Your task to perform on an android device: Clear all items from cart on target.com. Search for alienware area 51 on target.com, select the first entry, and add it to the cart. Image 0: 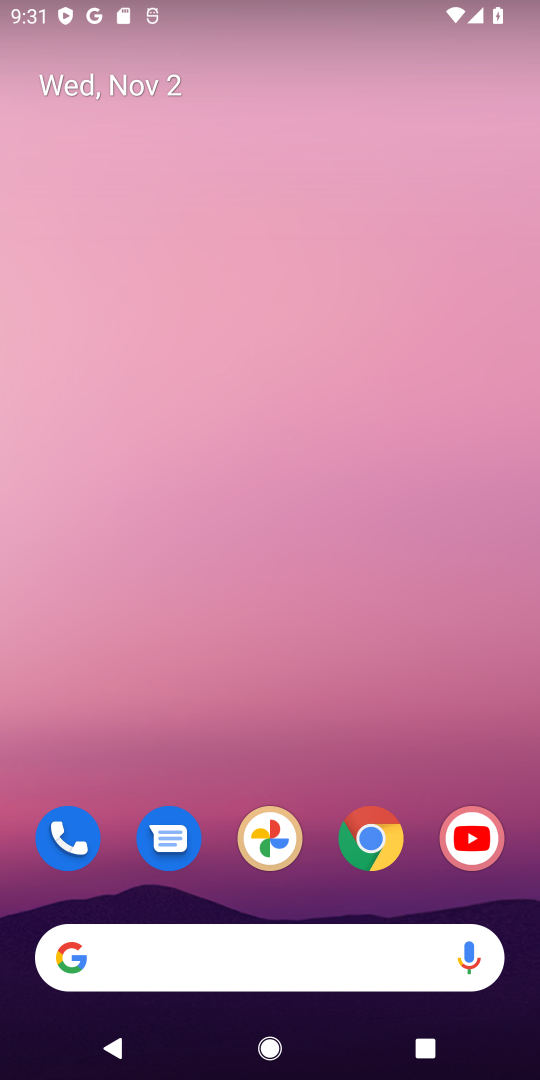
Step 0: click (390, 859)
Your task to perform on an android device: Clear all items from cart on target.com. Search for alienware area 51 on target.com, select the first entry, and add it to the cart. Image 1: 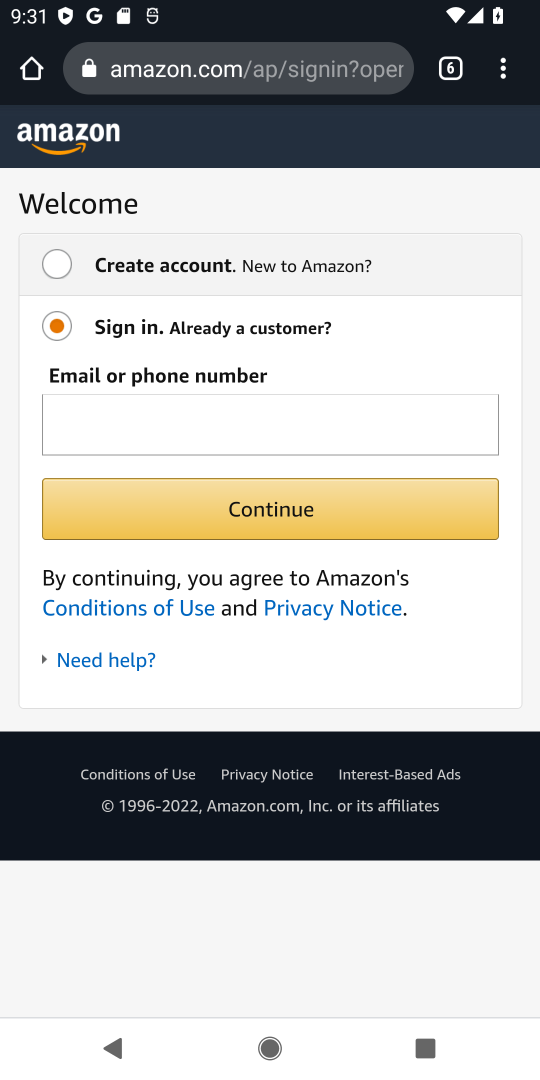
Step 1: click (441, 76)
Your task to perform on an android device: Clear all items from cart on target.com. Search for alienware area 51 on target.com, select the first entry, and add it to the cart. Image 2: 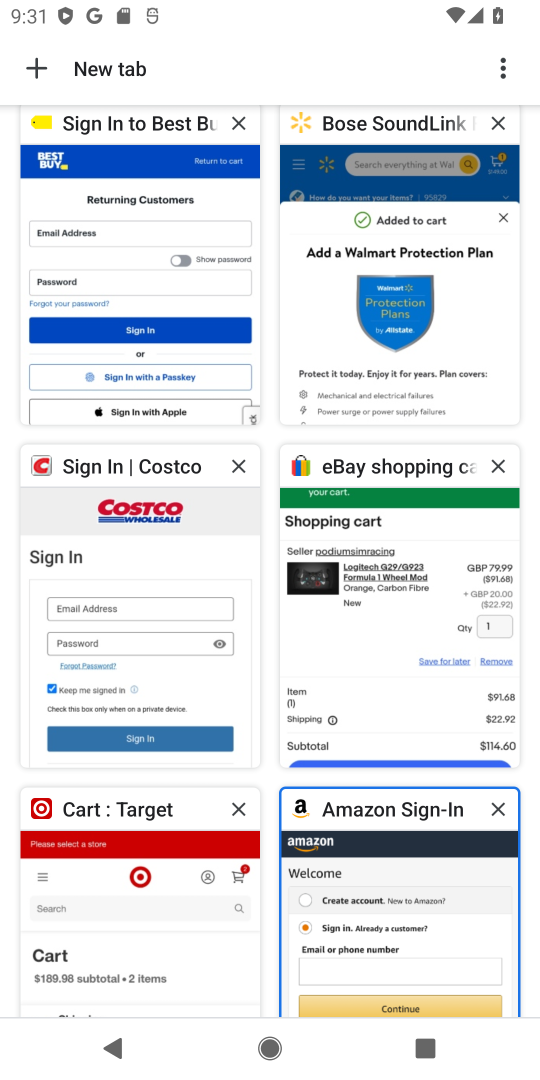
Step 2: click (70, 811)
Your task to perform on an android device: Clear all items from cart on target.com. Search for alienware area 51 on target.com, select the first entry, and add it to the cart. Image 3: 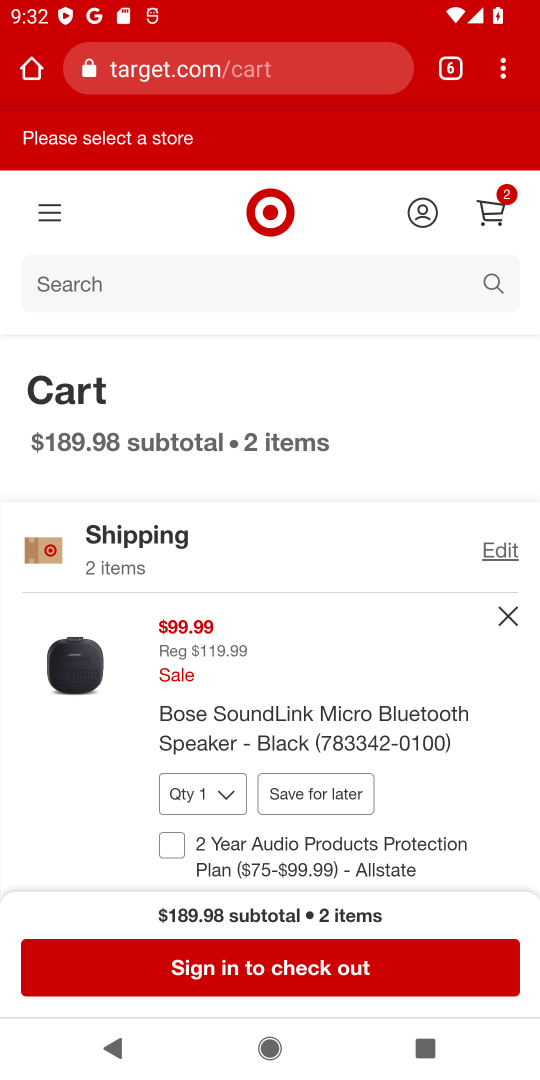
Step 3: click (229, 280)
Your task to perform on an android device: Clear all items from cart on target.com. Search for alienware area 51 on target.com, select the first entry, and add it to the cart. Image 4: 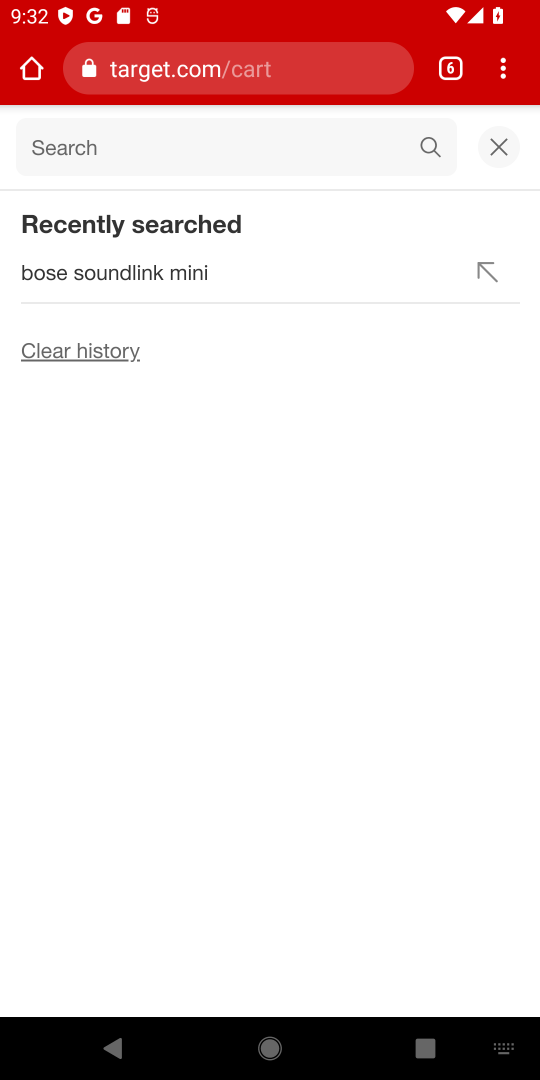
Step 4: type "alienware area 51"
Your task to perform on an android device: Clear all items from cart on target.com. Search for alienware area 51 on target.com, select the first entry, and add it to the cart. Image 5: 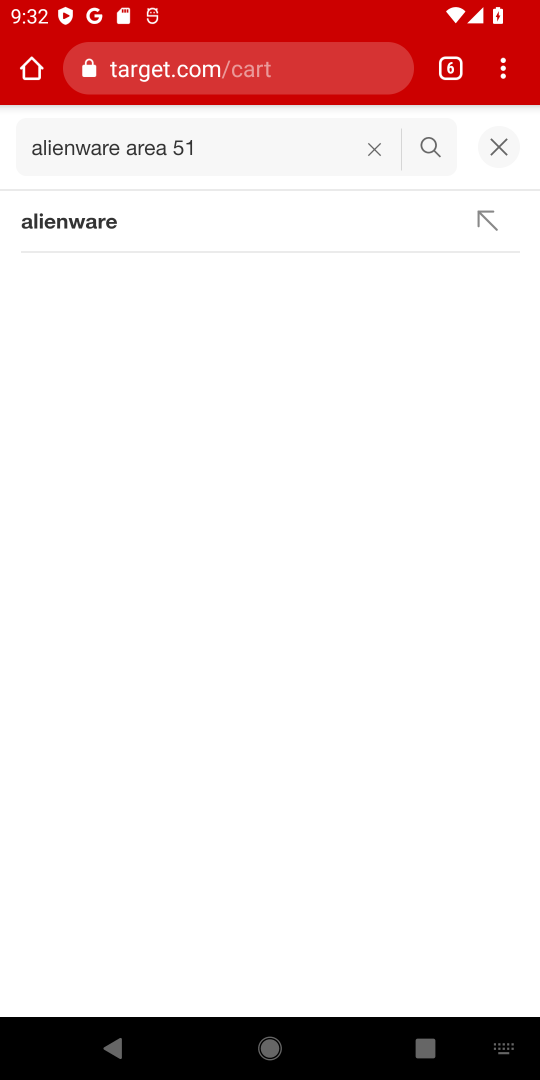
Step 5: click (101, 231)
Your task to perform on an android device: Clear all items from cart on target.com. Search for alienware area 51 on target.com, select the first entry, and add it to the cart. Image 6: 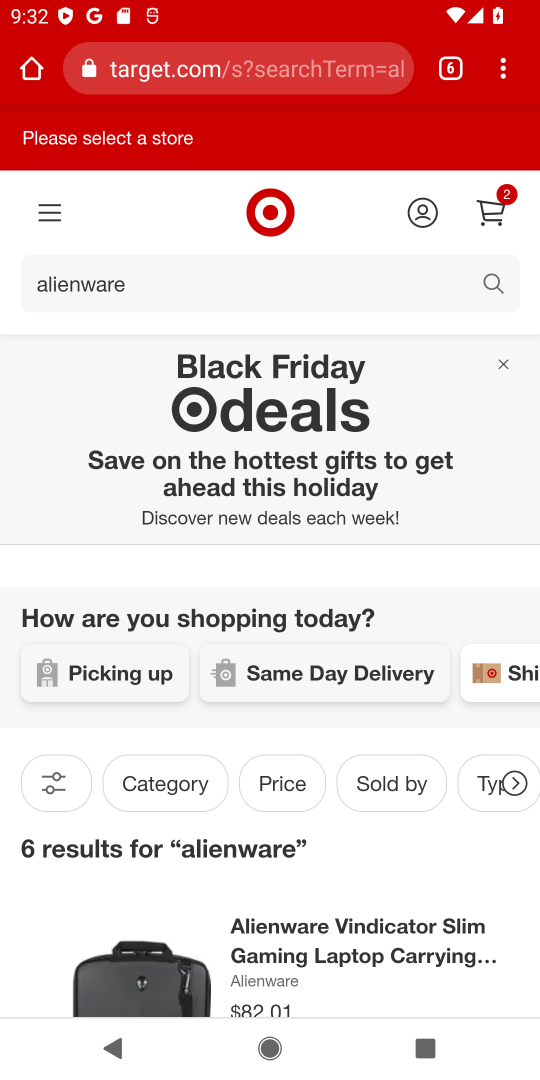
Step 6: drag from (374, 924) to (395, 335)
Your task to perform on an android device: Clear all items from cart on target.com. Search for alienware area 51 on target.com, select the first entry, and add it to the cart. Image 7: 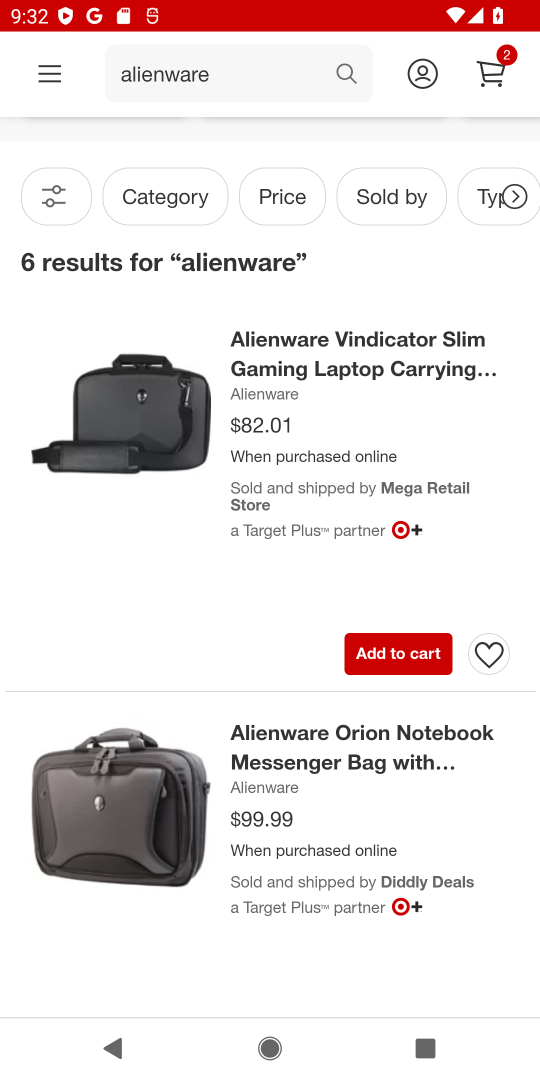
Step 7: click (412, 653)
Your task to perform on an android device: Clear all items from cart on target.com. Search for alienware area 51 on target.com, select the first entry, and add it to the cart. Image 8: 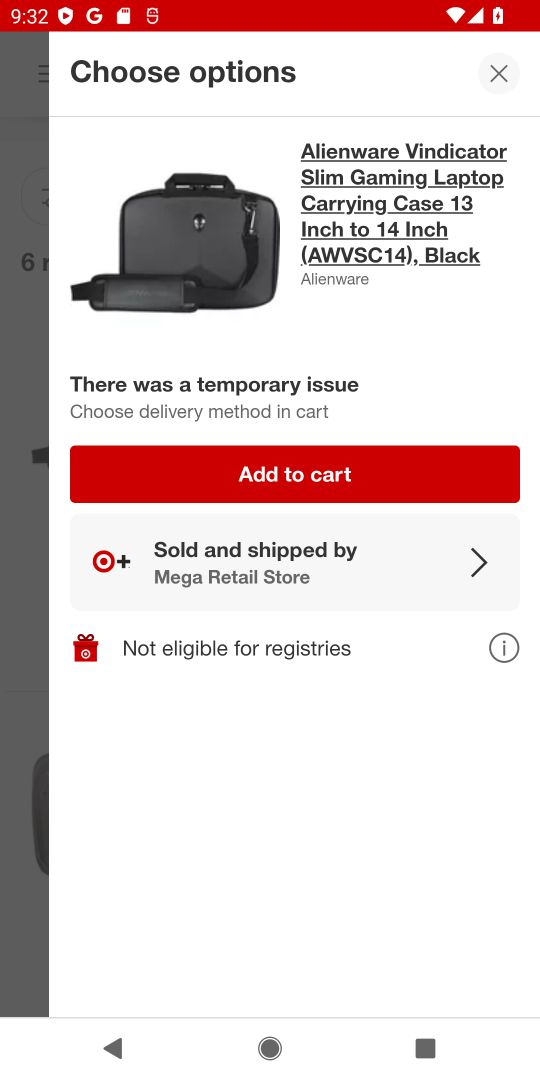
Step 8: click (303, 464)
Your task to perform on an android device: Clear all items from cart on target.com. Search for alienware area 51 on target.com, select the first entry, and add it to the cart. Image 9: 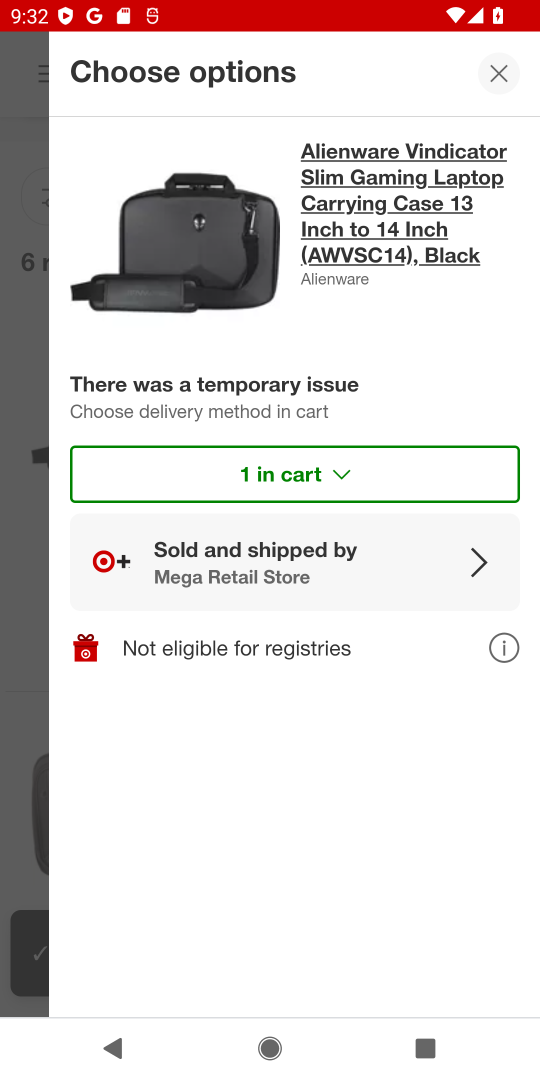
Step 9: click (491, 75)
Your task to perform on an android device: Clear all items from cart on target.com. Search for alienware area 51 on target.com, select the first entry, and add it to the cart. Image 10: 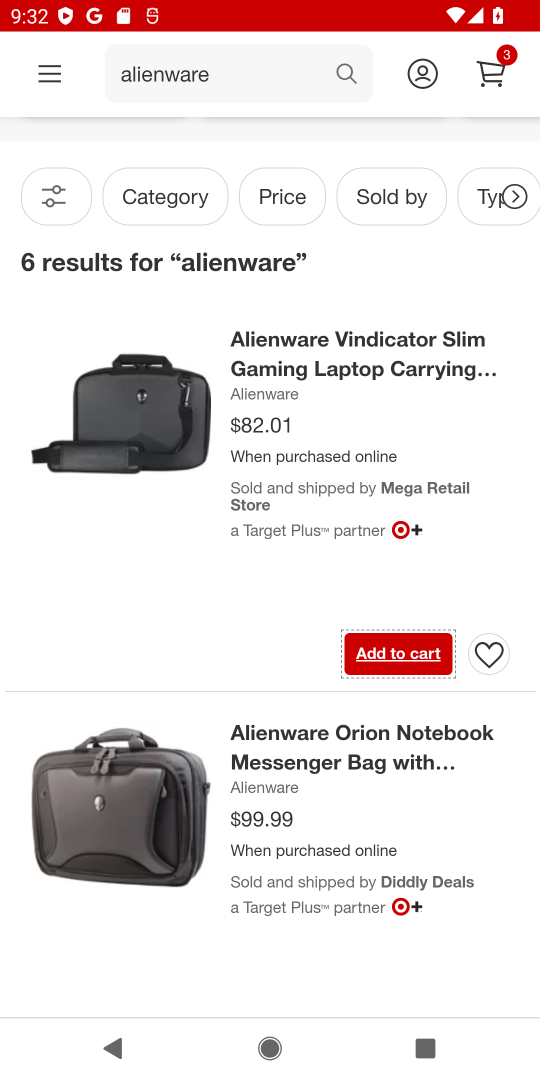
Step 10: click (491, 75)
Your task to perform on an android device: Clear all items from cart on target.com. Search for alienware area 51 on target.com, select the first entry, and add it to the cart. Image 11: 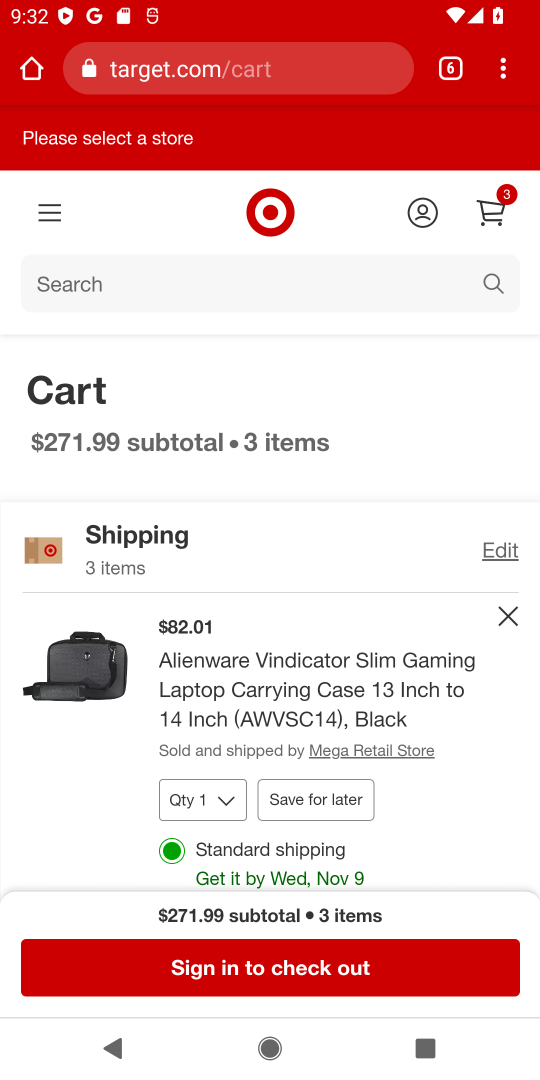
Step 11: click (442, 425)
Your task to perform on an android device: Clear all items from cart on target.com. Search for alienware area 51 on target.com, select the first entry, and add it to the cart. Image 12: 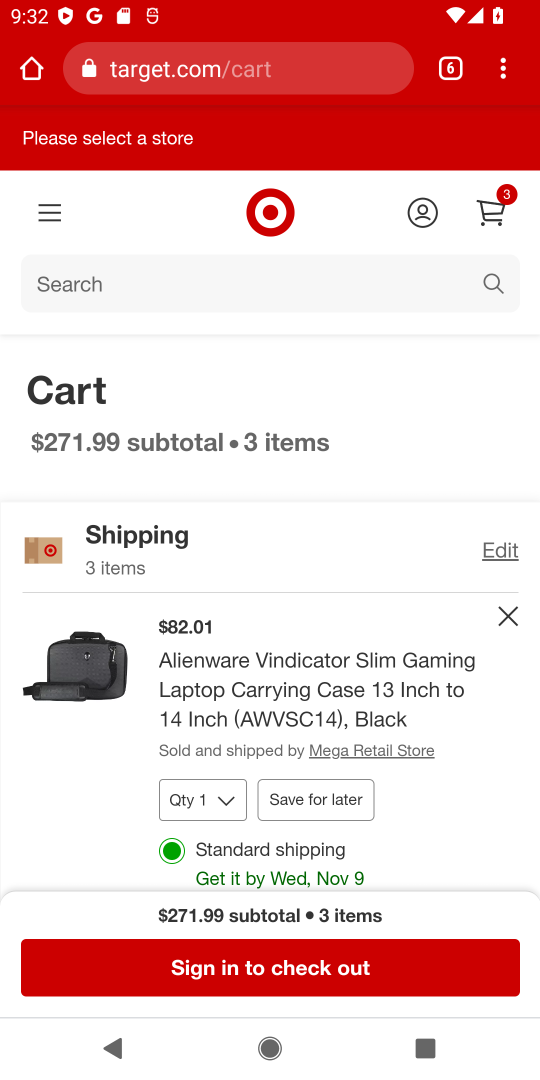
Step 12: drag from (453, 797) to (411, 107)
Your task to perform on an android device: Clear all items from cart on target.com. Search for alienware area 51 on target.com, select the first entry, and add it to the cart. Image 13: 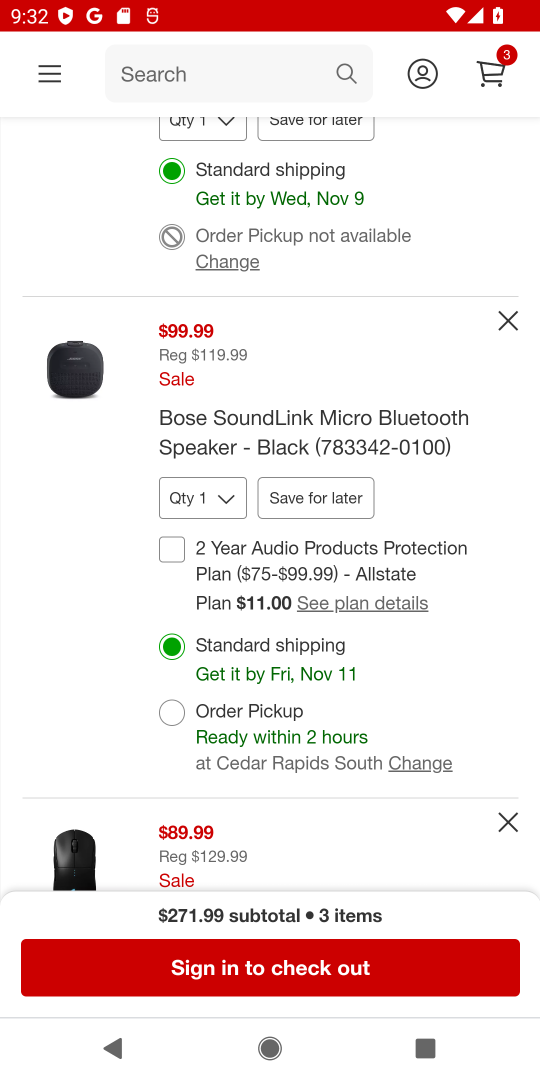
Step 13: click (506, 317)
Your task to perform on an android device: Clear all items from cart on target.com. Search for alienware area 51 on target.com, select the first entry, and add it to the cart. Image 14: 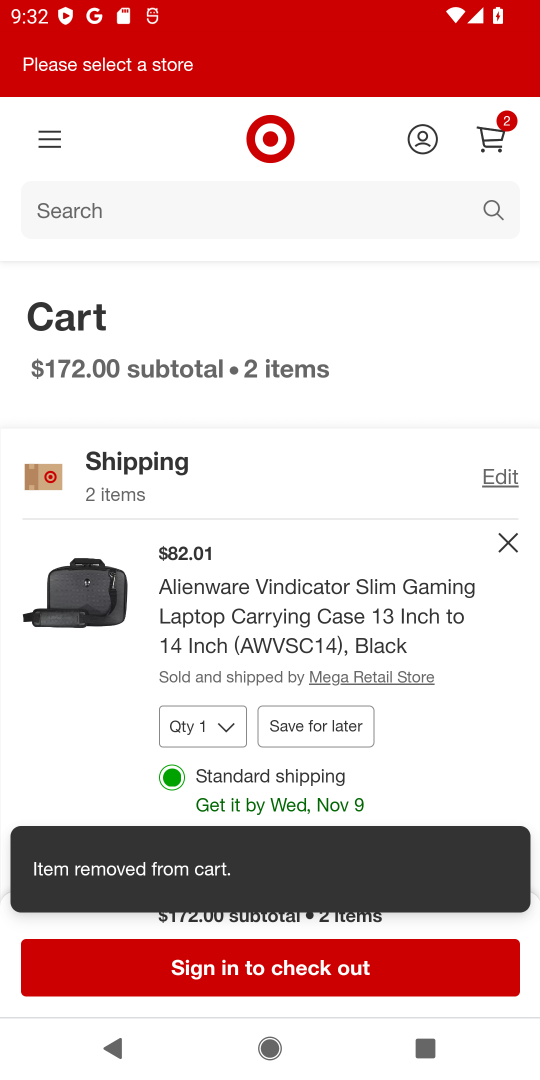
Step 14: drag from (498, 684) to (443, 268)
Your task to perform on an android device: Clear all items from cart on target.com. Search for alienware area 51 on target.com, select the first entry, and add it to the cart. Image 15: 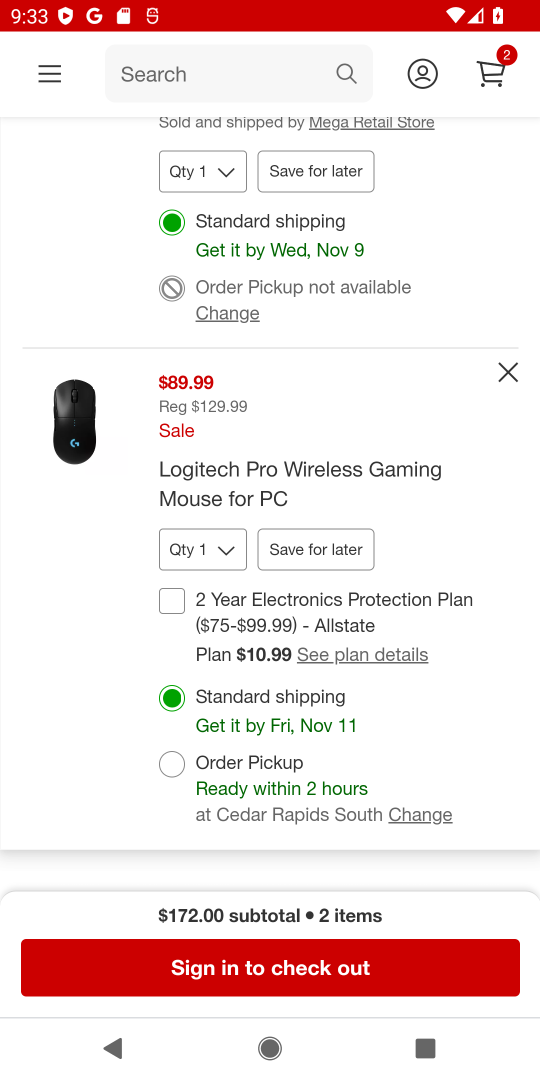
Step 15: click (502, 369)
Your task to perform on an android device: Clear all items from cart on target.com. Search for alienware area 51 on target.com, select the first entry, and add it to the cart. Image 16: 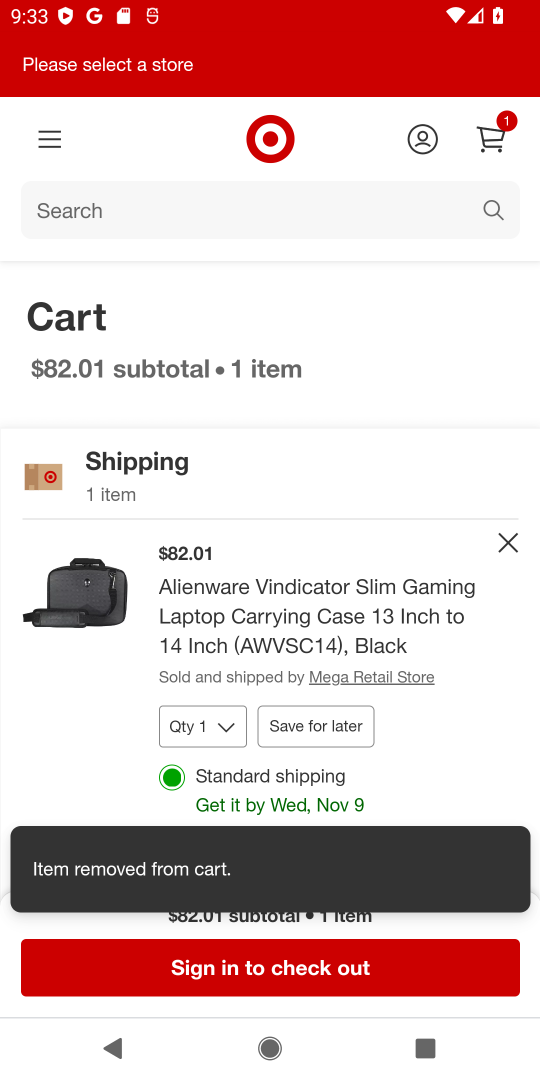
Step 16: click (328, 962)
Your task to perform on an android device: Clear all items from cart on target.com. Search for alienware area 51 on target.com, select the first entry, and add it to the cart. Image 17: 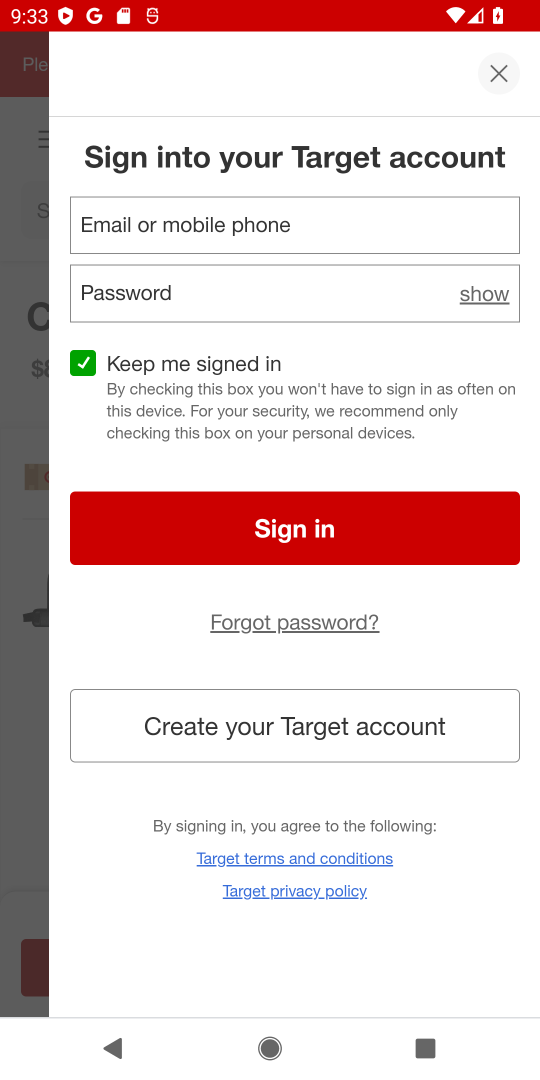
Step 17: task complete